Your task to perform on an android device: toggle data saver in the chrome app Image 0: 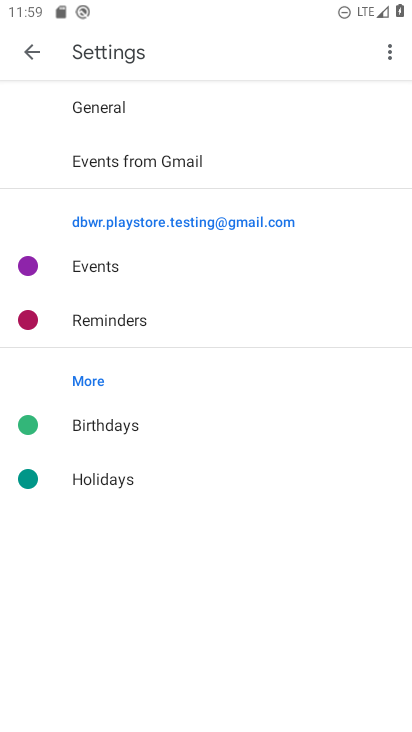
Step 0: press home button
Your task to perform on an android device: toggle data saver in the chrome app Image 1: 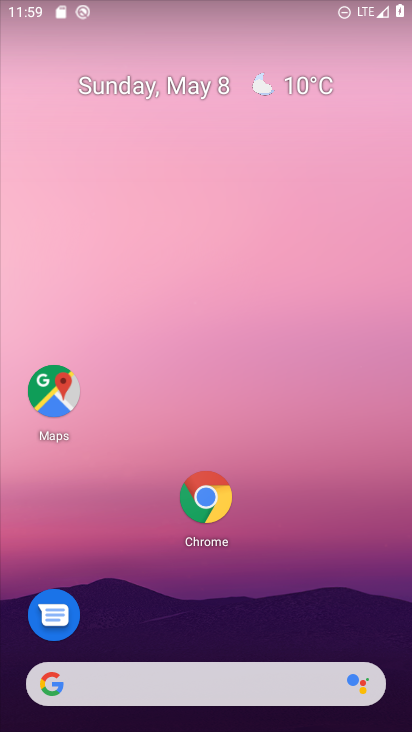
Step 1: click (205, 489)
Your task to perform on an android device: toggle data saver in the chrome app Image 2: 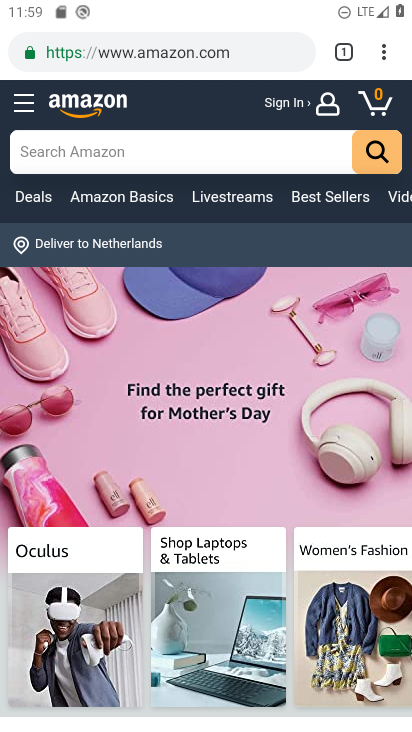
Step 2: drag from (387, 49) to (194, 631)
Your task to perform on an android device: toggle data saver in the chrome app Image 3: 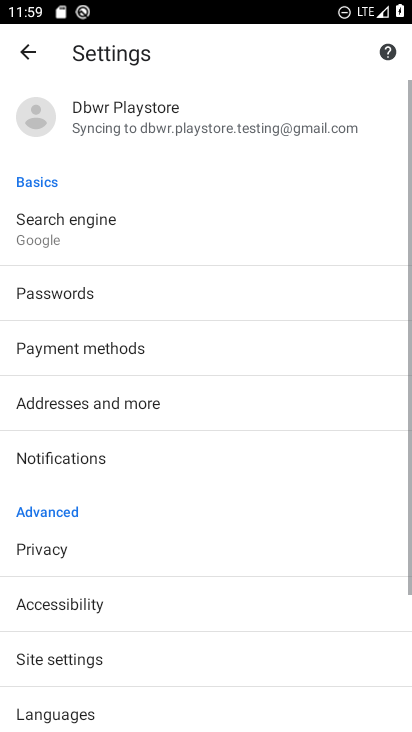
Step 3: drag from (166, 664) to (212, 244)
Your task to perform on an android device: toggle data saver in the chrome app Image 4: 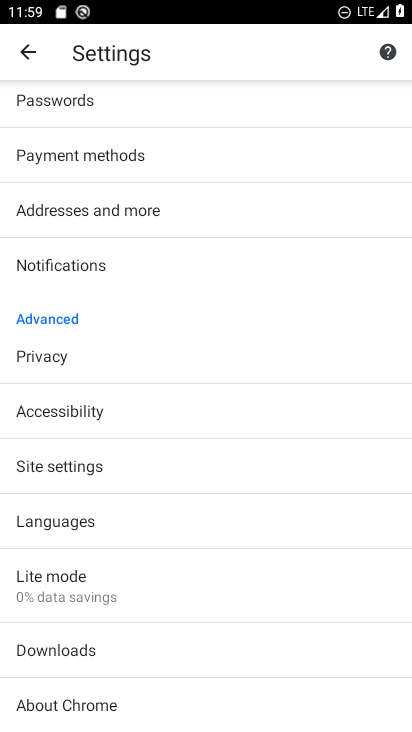
Step 4: drag from (172, 640) to (232, 300)
Your task to perform on an android device: toggle data saver in the chrome app Image 5: 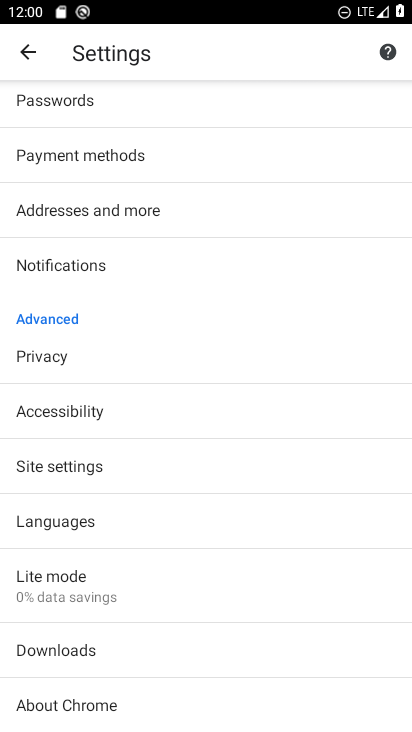
Step 5: click (107, 583)
Your task to perform on an android device: toggle data saver in the chrome app Image 6: 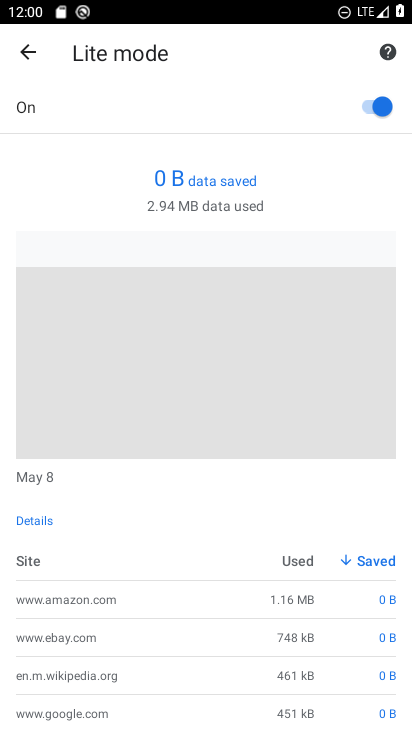
Step 6: click (367, 104)
Your task to perform on an android device: toggle data saver in the chrome app Image 7: 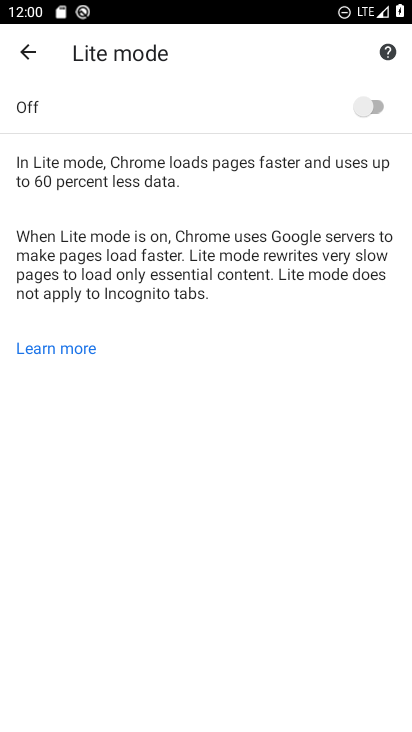
Step 7: task complete